Your task to perform on an android device: Go to privacy settings Image 0: 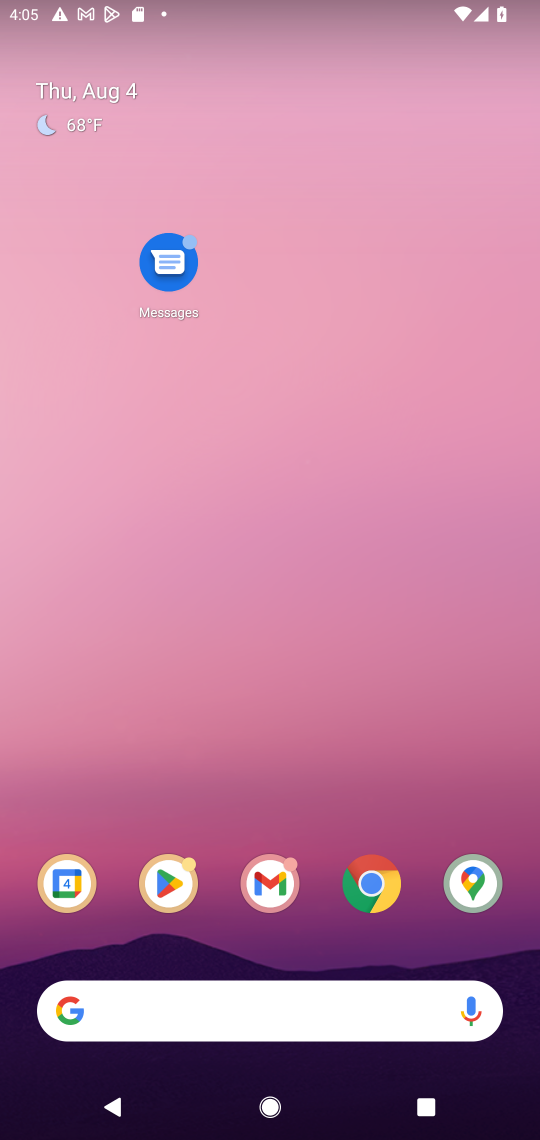
Step 0: drag from (323, 963) to (320, 835)
Your task to perform on an android device: Go to privacy settings Image 1: 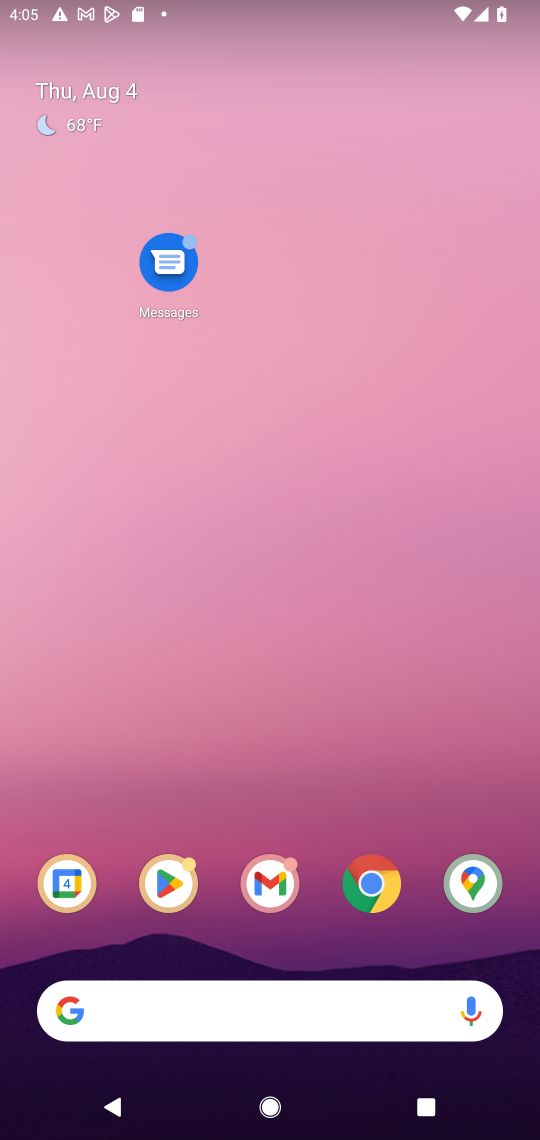
Step 1: click (259, 88)
Your task to perform on an android device: Go to privacy settings Image 2: 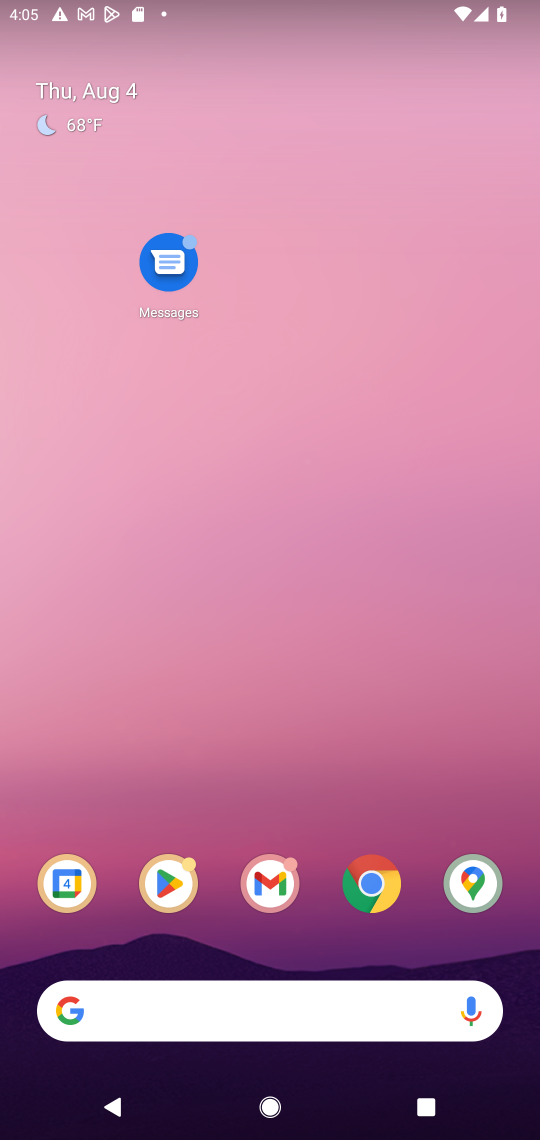
Step 2: drag from (302, 963) to (272, 42)
Your task to perform on an android device: Go to privacy settings Image 3: 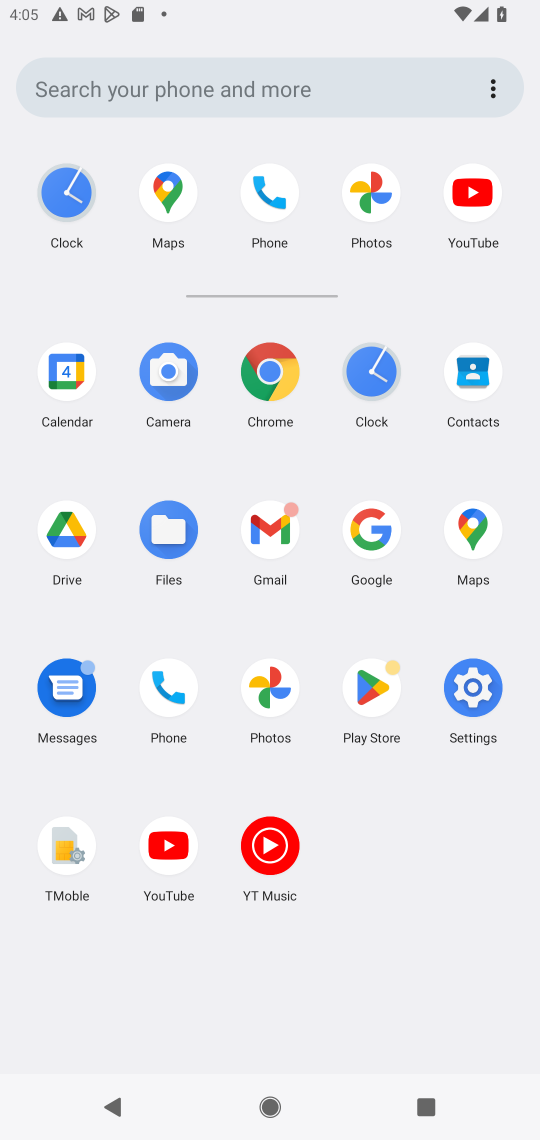
Step 3: click (475, 695)
Your task to perform on an android device: Go to privacy settings Image 4: 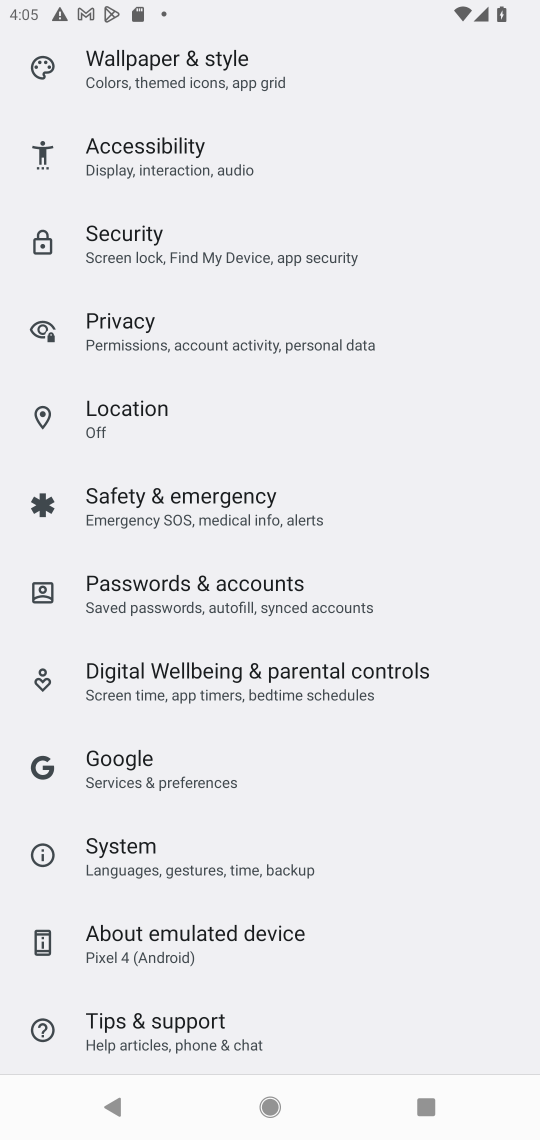
Step 4: click (128, 318)
Your task to perform on an android device: Go to privacy settings Image 5: 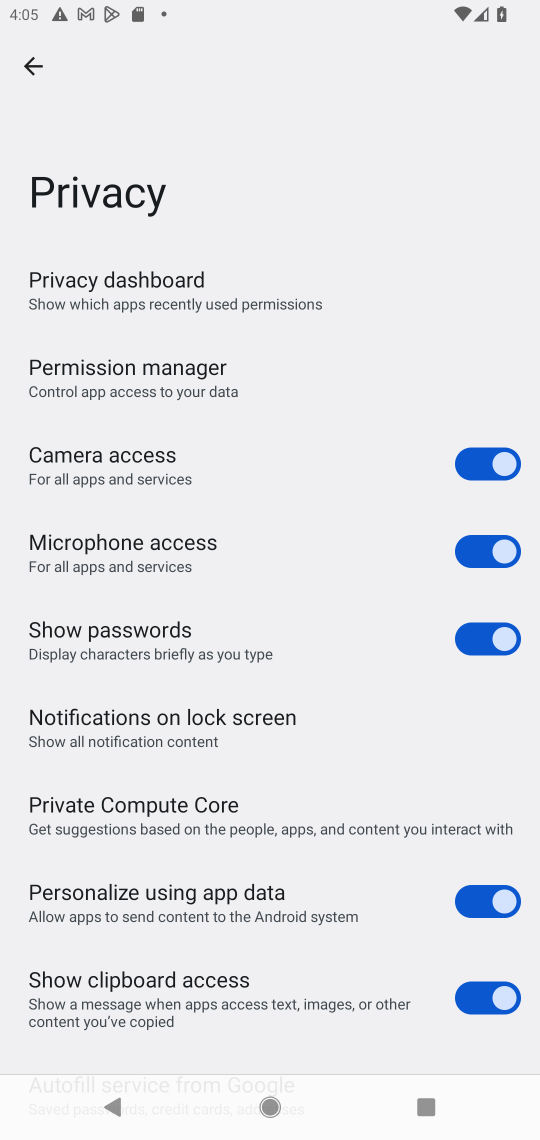
Step 5: task complete